Your task to perform on an android device: turn on javascript in the chrome app Image 0: 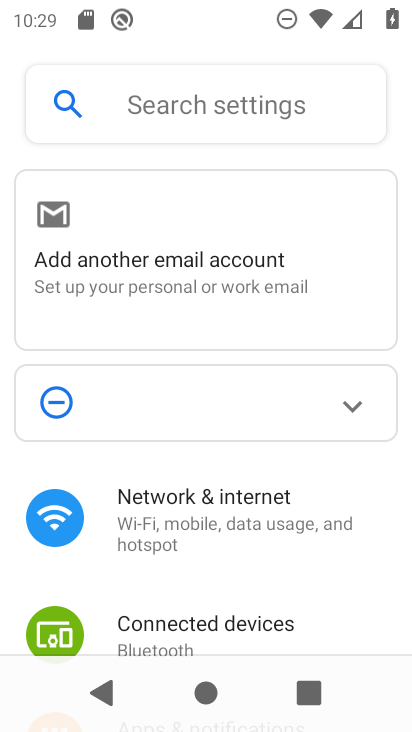
Step 0: press home button
Your task to perform on an android device: turn on javascript in the chrome app Image 1: 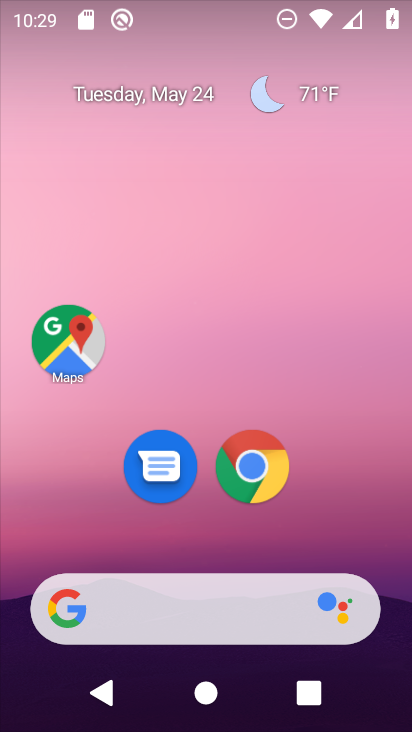
Step 1: click (282, 458)
Your task to perform on an android device: turn on javascript in the chrome app Image 2: 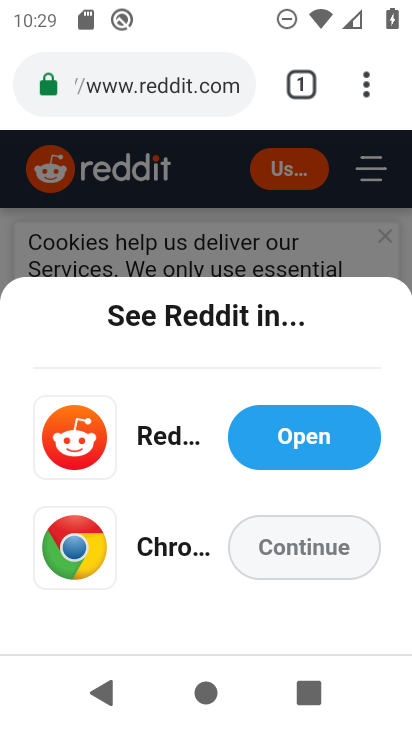
Step 2: click (380, 93)
Your task to perform on an android device: turn on javascript in the chrome app Image 3: 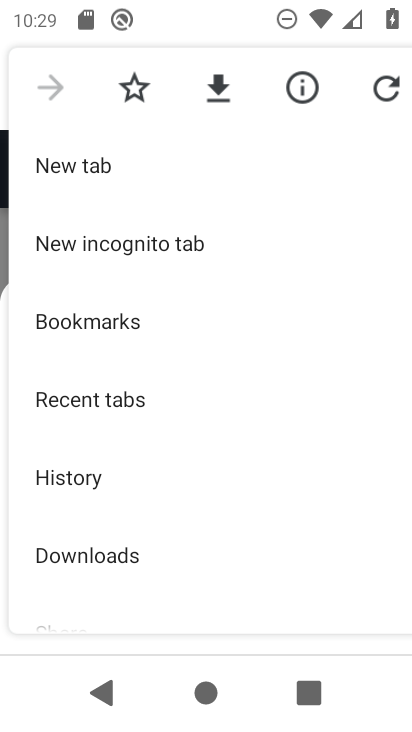
Step 3: drag from (149, 517) to (166, 305)
Your task to perform on an android device: turn on javascript in the chrome app Image 4: 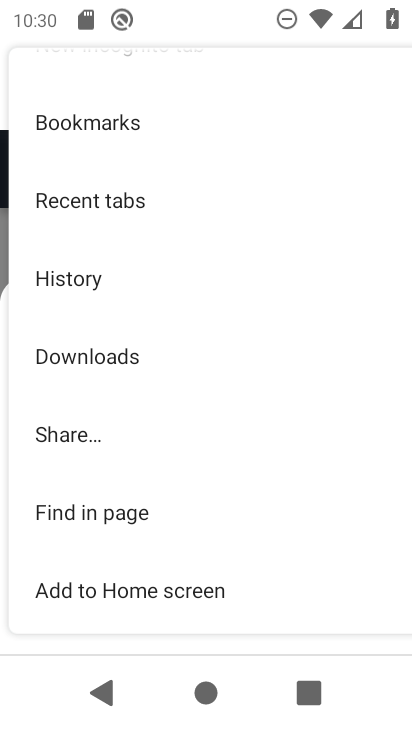
Step 4: drag from (135, 525) to (170, 354)
Your task to perform on an android device: turn on javascript in the chrome app Image 5: 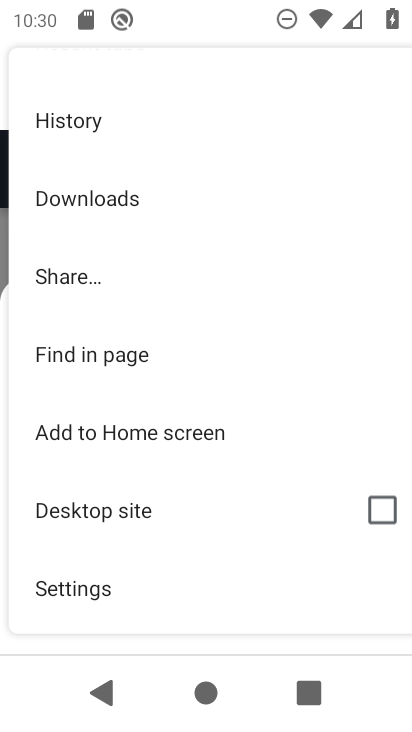
Step 5: drag from (125, 570) to (149, 379)
Your task to perform on an android device: turn on javascript in the chrome app Image 6: 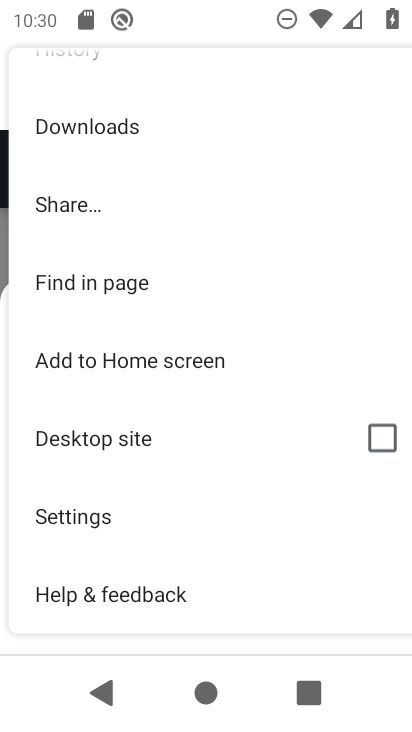
Step 6: click (84, 520)
Your task to perform on an android device: turn on javascript in the chrome app Image 7: 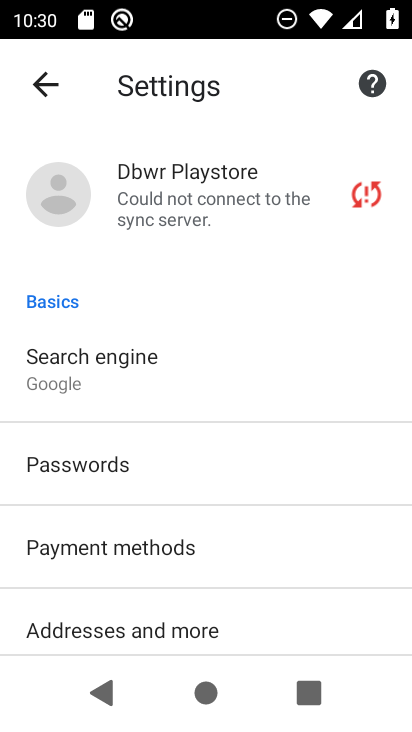
Step 7: drag from (137, 541) to (206, 261)
Your task to perform on an android device: turn on javascript in the chrome app Image 8: 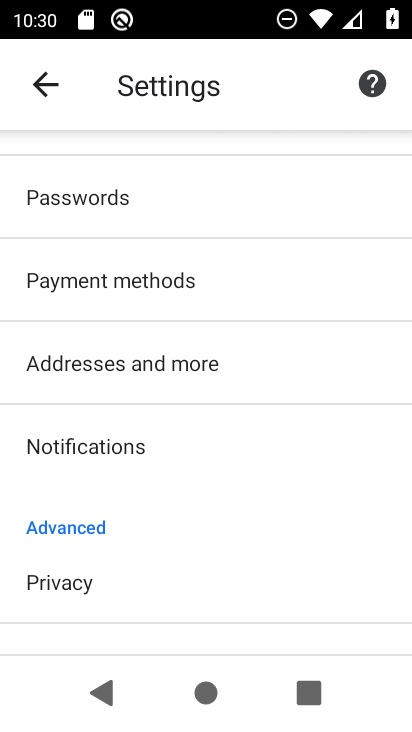
Step 8: drag from (143, 549) to (185, 272)
Your task to perform on an android device: turn on javascript in the chrome app Image 9: 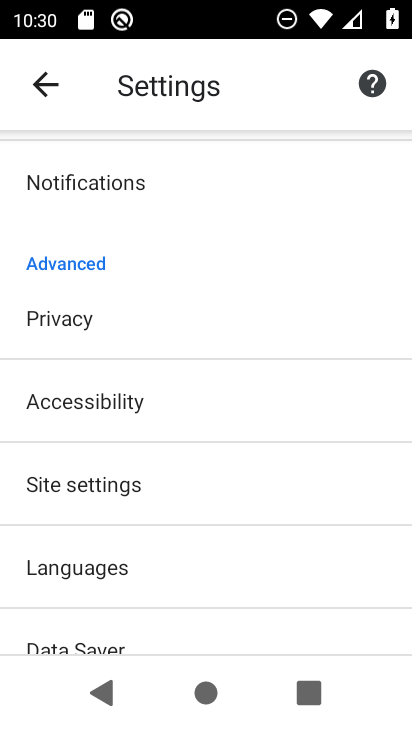
Step 9: click (119, 494)
Your task to perform on an android device: turn on javascript in the chrome app Image 10: 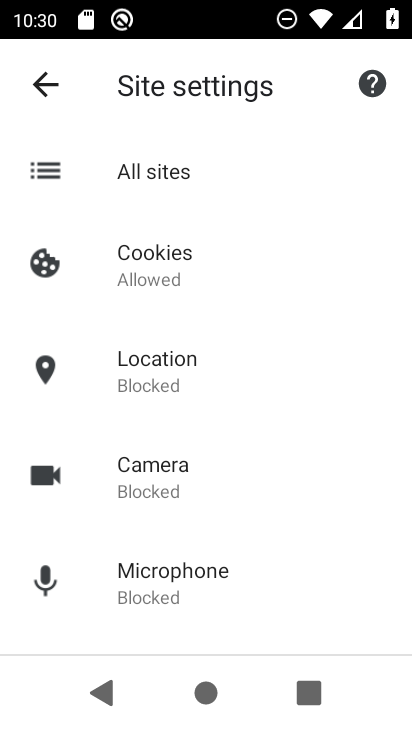
Step 10: drag from (191, 528) to (210, 294)
Your task to perform on an android device: turn on javascript in the chrome app Image 11: 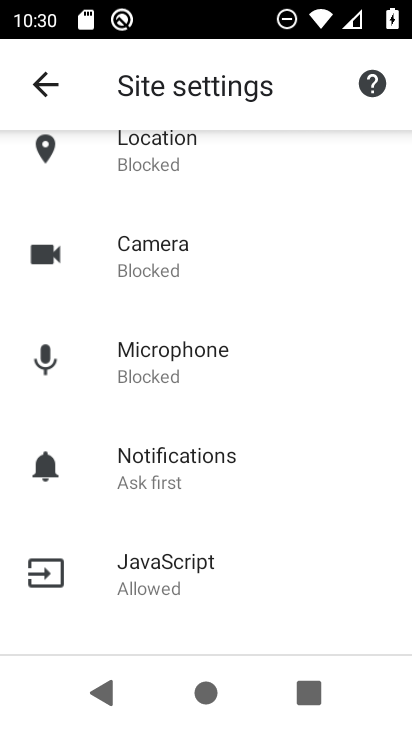
Step 11: click (182, 583)
Your task to perform on an android device: turn on javascript in the chrome app Image 12: 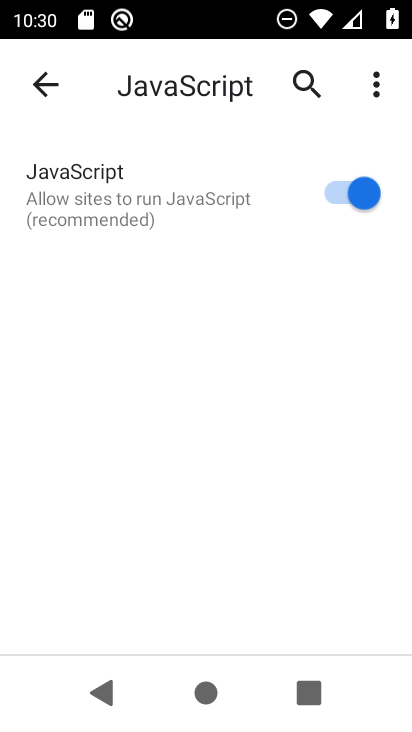
Step 12: task complete